Your task to perform on an android device: visit the assistant section in the google photos Image 0: 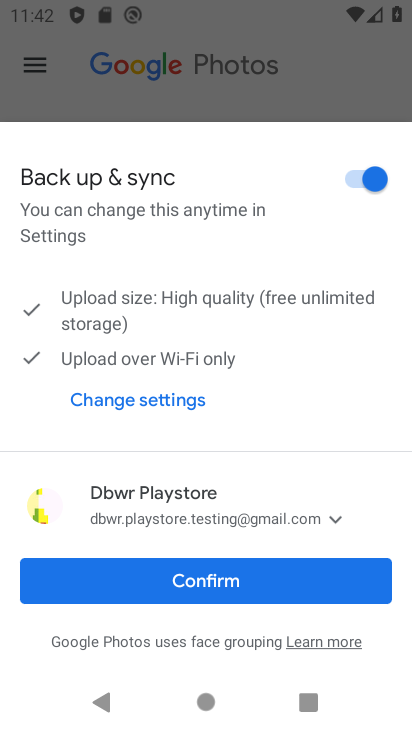
Step 0: click (221, 585)
Your task to perform on an android device: visit the assistant section in the google photos Image 1: 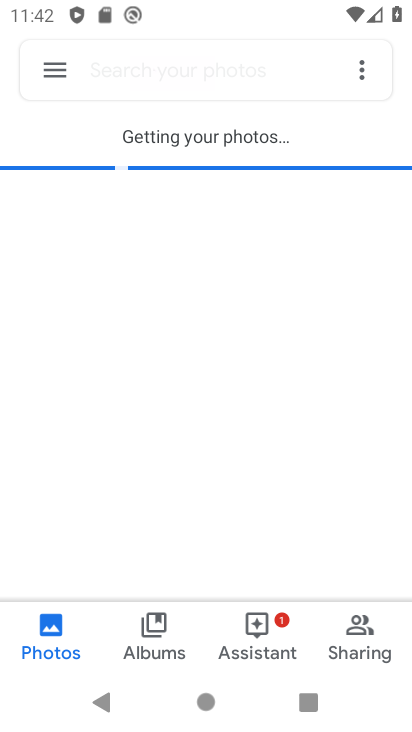
Step 1: click (245, 636)
Your task to perform on an android device: visit the assistant section in the google photos Image 2: 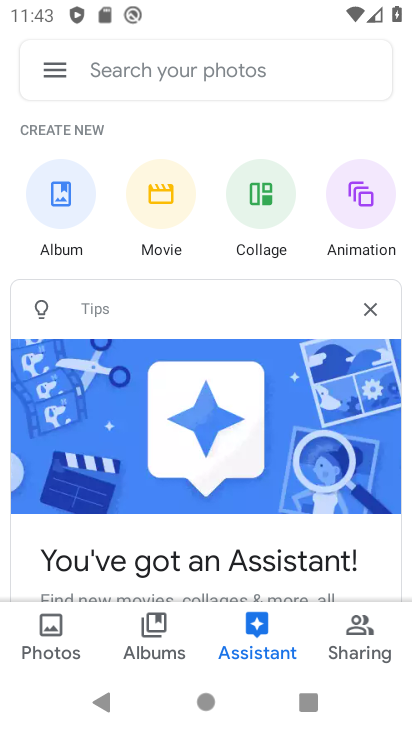
Step 2: task complete